Your task to perform on an android device: toggle location history Image 0: 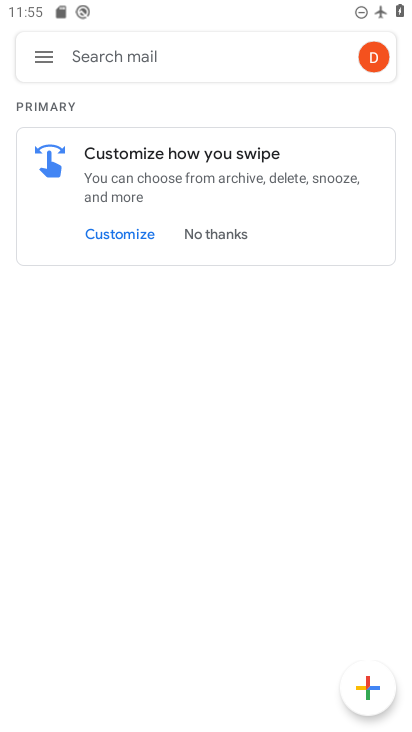
Step 0: press home button
Your task to perform on an android device: toggle location history Image 1: 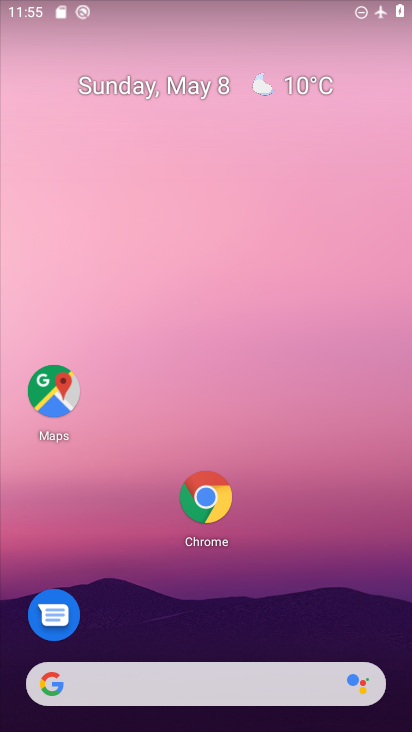
Step 1: drag from (314, 625) to (268, 113)
Your task to perform on an android device: toggle location history Image 2: 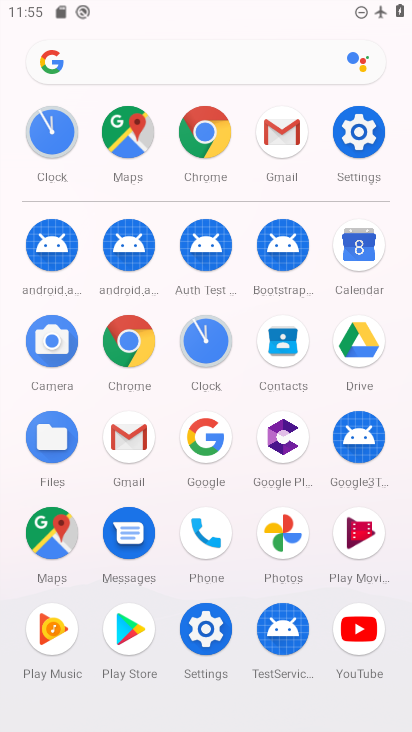
Step 2: click (203, 633)
Your task to perform on an android device: toggle location history Image 3: 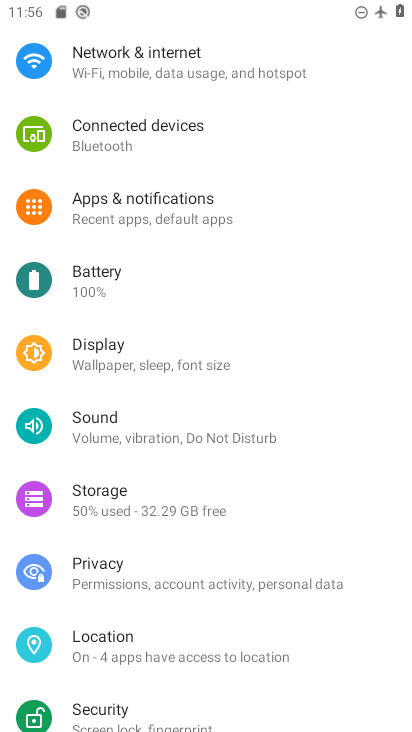
Step 3: click (177, 636)
Your task to perform on an android device: toggle location history Image 4: 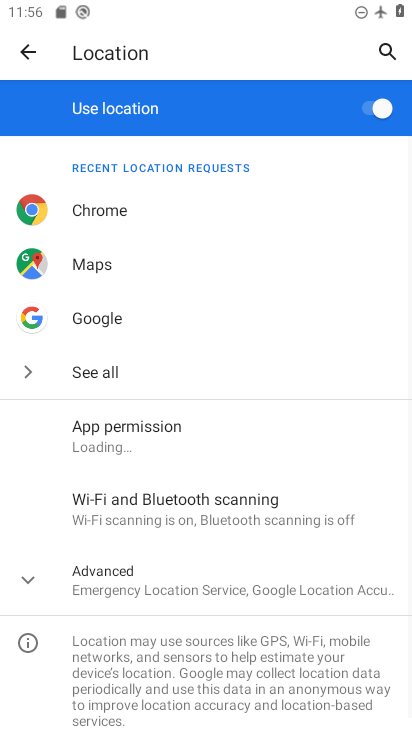
Step 4: click (145, 577)
Your task to perform on an android device: toggle location history Image 5: 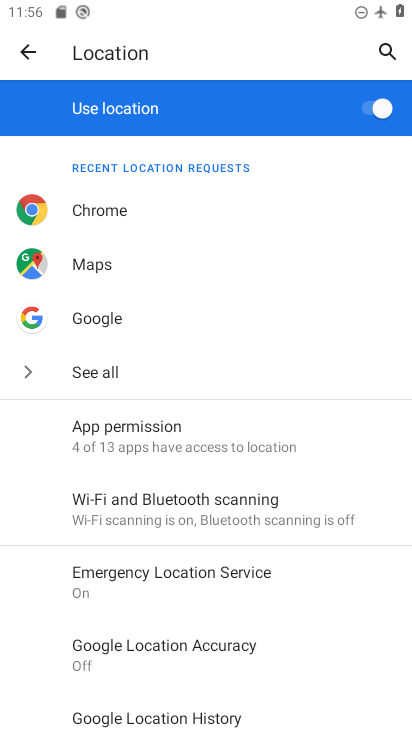
Step 5: click (228, 717)
Your task to perform on an android device: toggle location history Image 6: 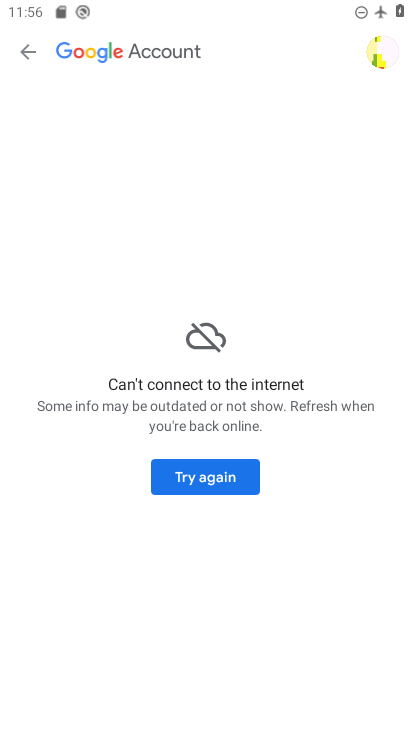
Step 6: task complete